Your task to perform on an android device: delete location history Image 0: 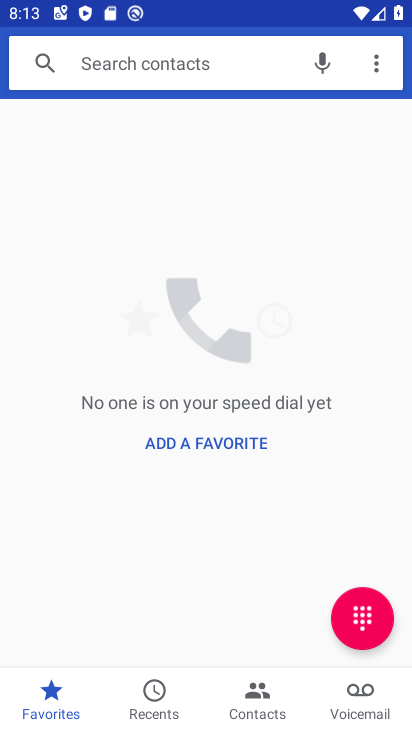
Step 0: press back button
Your task to perform on an android device: delete location history Image 1: 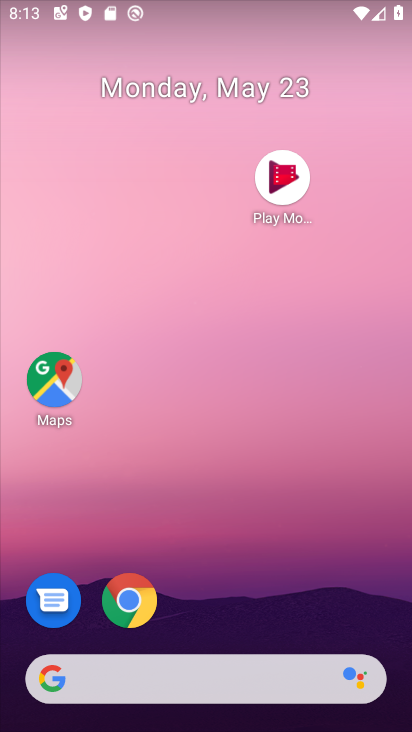
Step 1: drag from (257, 607) to (181, 225)
Your task to perform on an android device: delete location history Image 2: 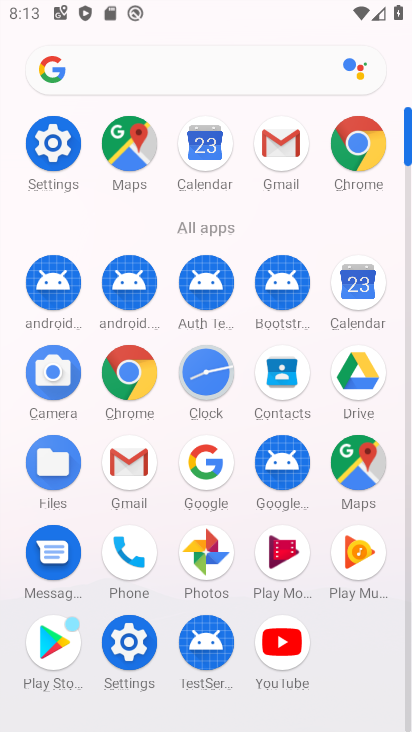
Step 2: click (360, 454)
Your task to perform on an android device: delete location history Image 3: 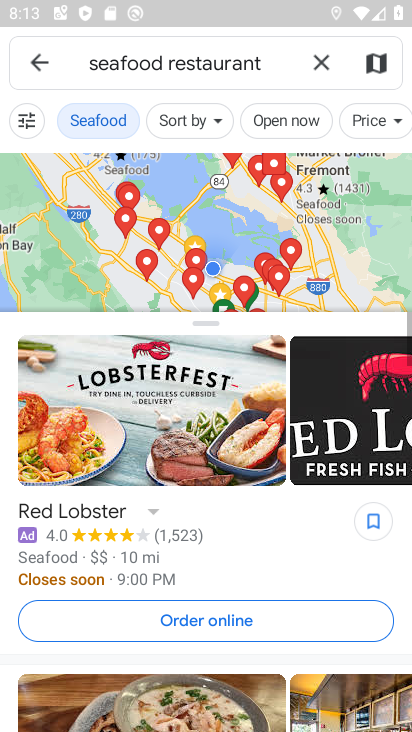
Step 3: click (36, 72)
Your task to perform on an android device: delete location history Image 4: 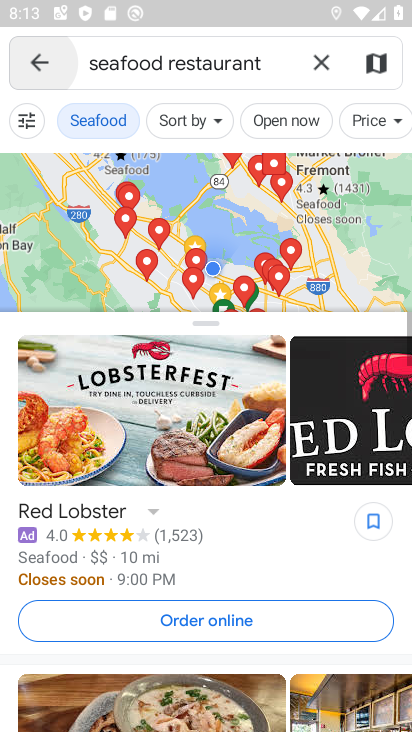
Step 4: click (37, 72)
Your task to perform on an android device: delete location history Image 5: 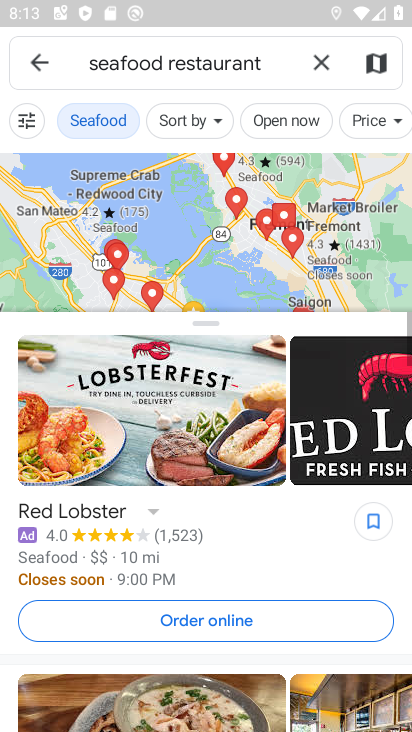
Step 5: click (28, 72)
Your task to perform on an android device: delete location history Image 6: 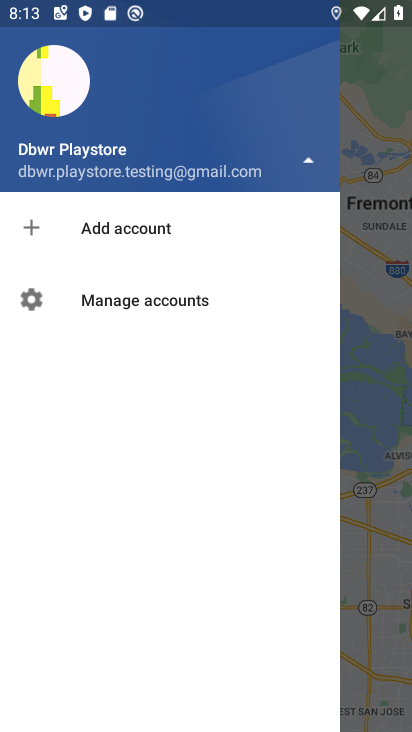
Step 6: click (308, 158)
Your task to perform on an android device: delete location history Image 7: 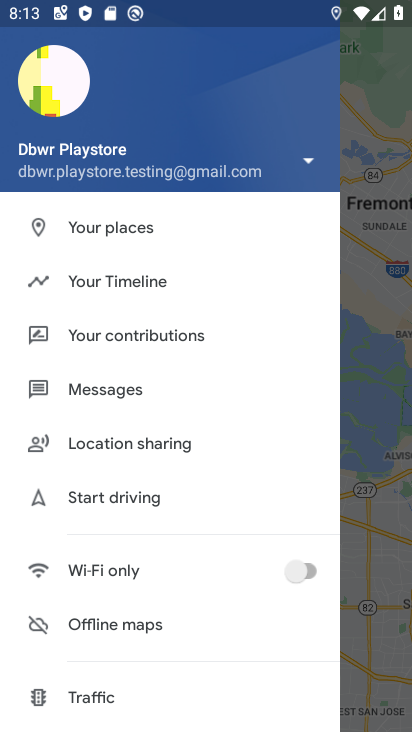
Step 7: click (115, 284)
Your task to perform on an android device: delete location history Image 8: 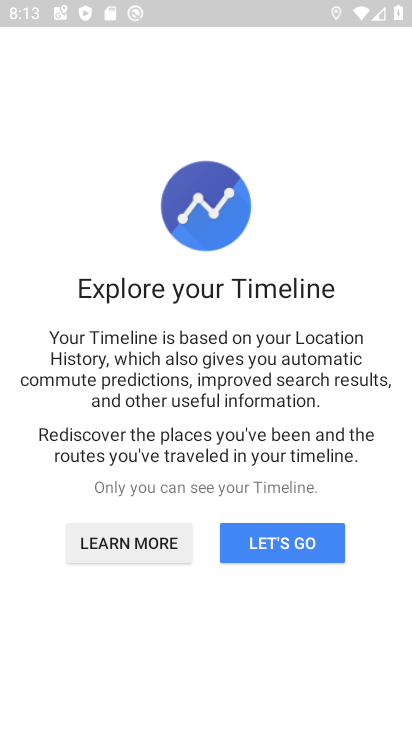
Step 8: click (247, 543)
Your task to perform on an android device: delete location history Image 9: 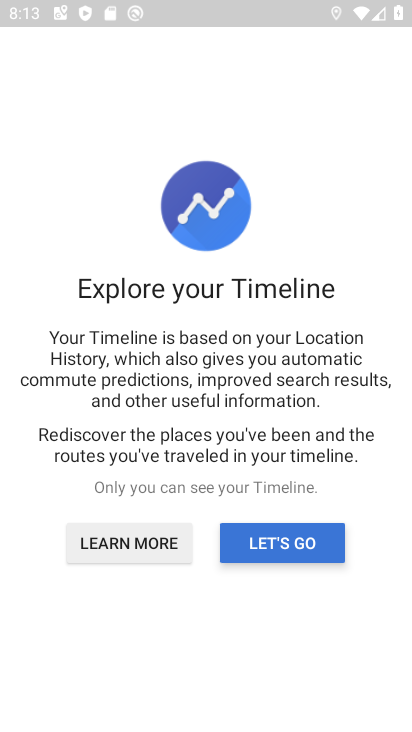
Step 9: click (248, 542)
Your task to perform on an android device: delete location history Image 10: 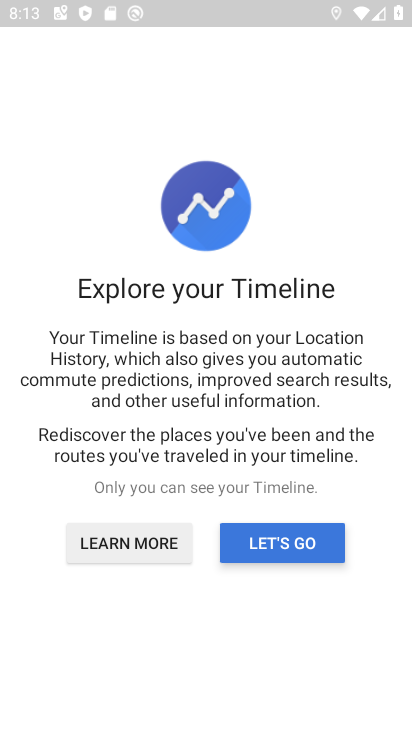
Step 10: click (249, 542)
Your task to perform on an android device: delete location history Image 11: 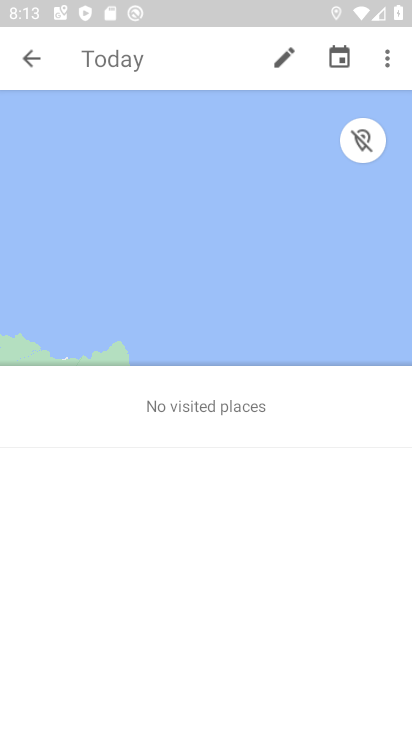
Step 11: click (385, 54)
Your task to perform on an android device: delete location history Image 12: 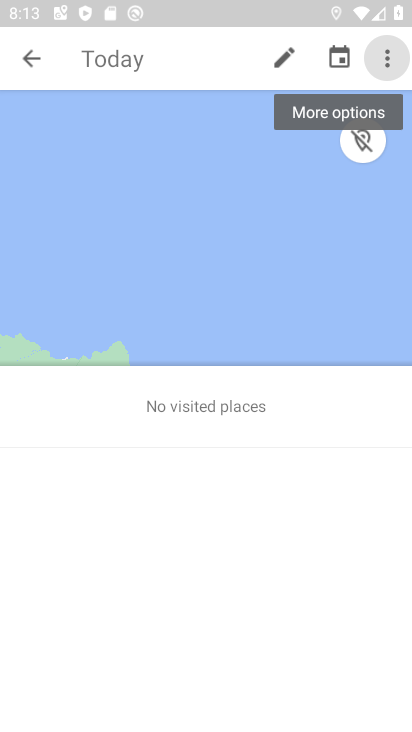
Step 12: click (383, 63)
Your task to perform on an android device: delete location history Image 13: 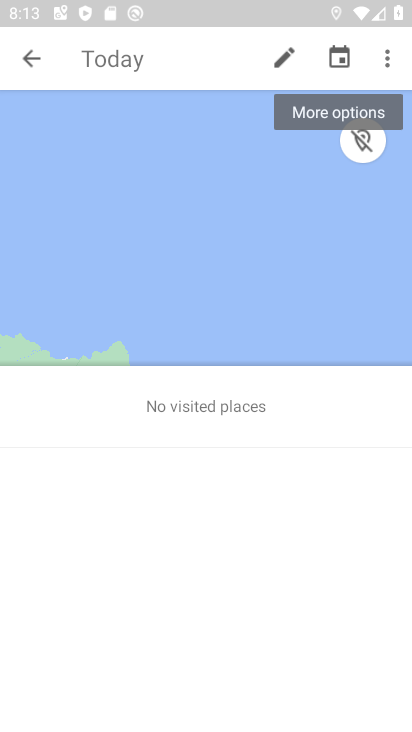
Step 13: click (382, 65)
Your task to perform on an android device: delete location history Image 14: 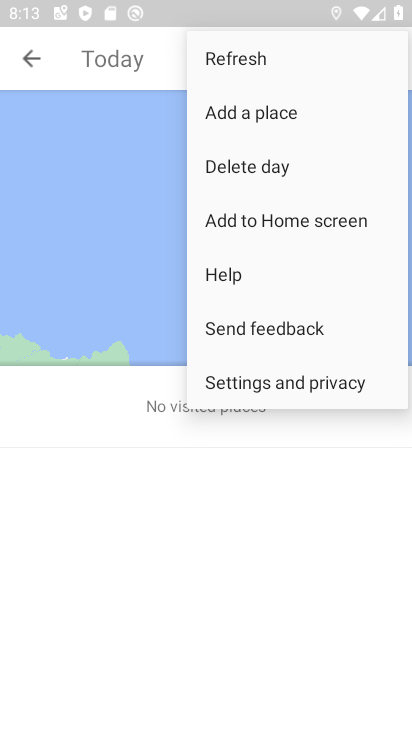
Step 14: click (275, 374)
Your task to perform on an android device: delete location history Image 15: 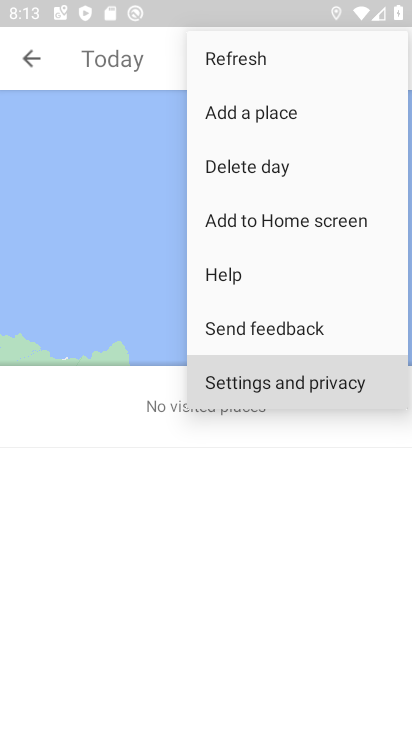
Step 15: click (275, 376)
Your task to perform on an android device: delete location history Image 16: 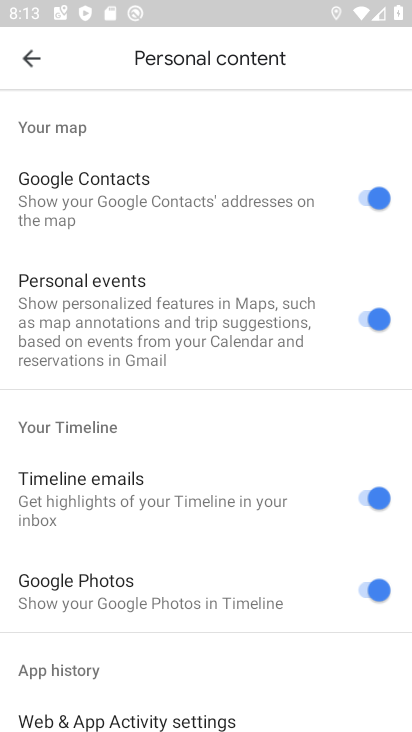
Step 16: drag from (185, 553) to (272, 214)
Your task to perform on an android device: delete location history Image 17: 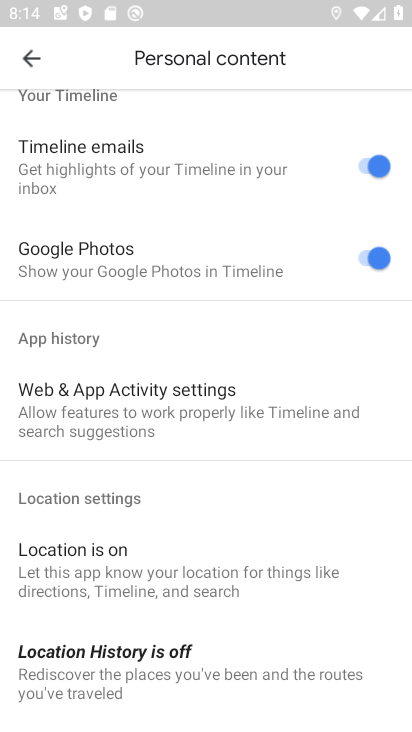
Step 17: drag from (181, 520) to (171, 196)
Your task to perform on an android device: delete location history Image 18: 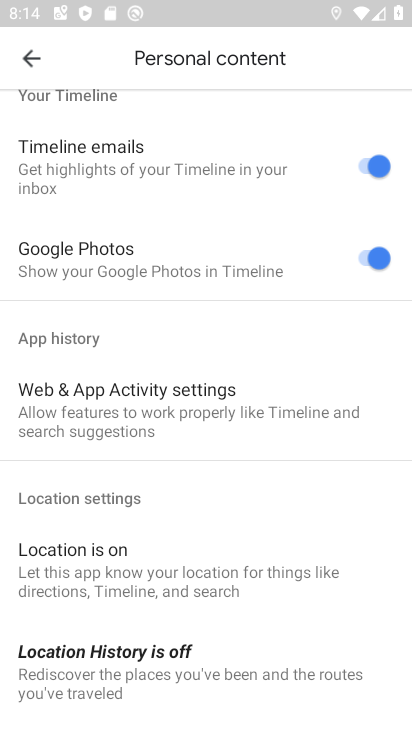
Step 18: drag from (135, 539) to (135, 97)
Your task to perform on an android device: delete location history Image 19: 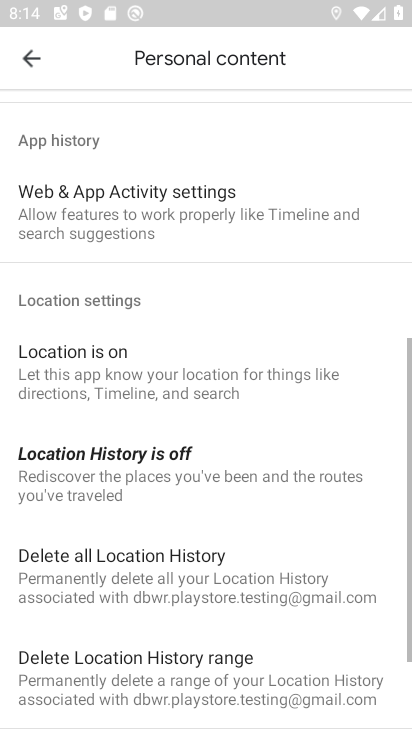
Step 19: drag from (175, 492) to (118, 138)
Your task to perform on an android device: delete location history Image 20: 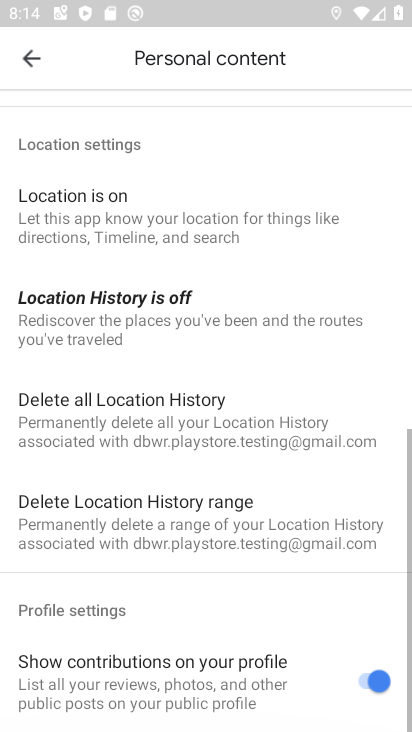
Step 20: drag from (181, 387) to (170, 145)
Your task to perform on an android device: delete location history Image 21: 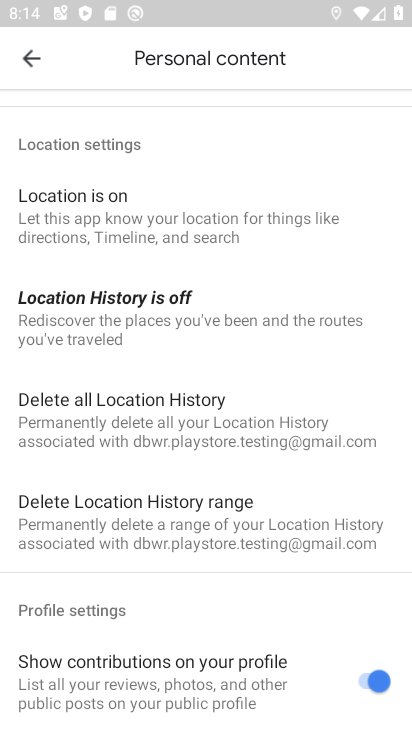
Step 21: click (88, 415)
Your task to perform on an android device: delete location history Image 22: 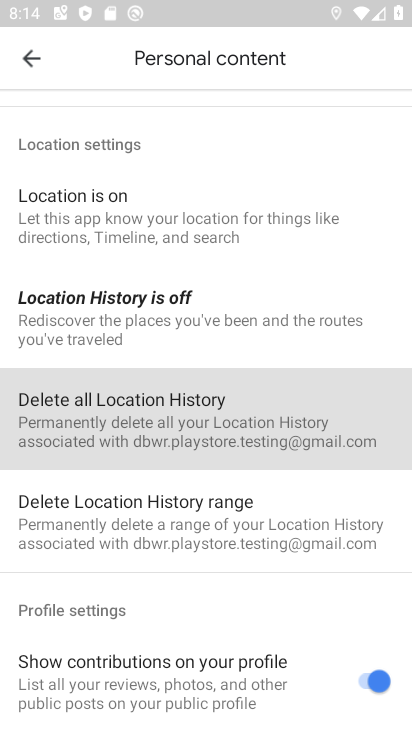
Step 22: click (88, 415)
Your task to perform on an android device: delete location history Image 23: 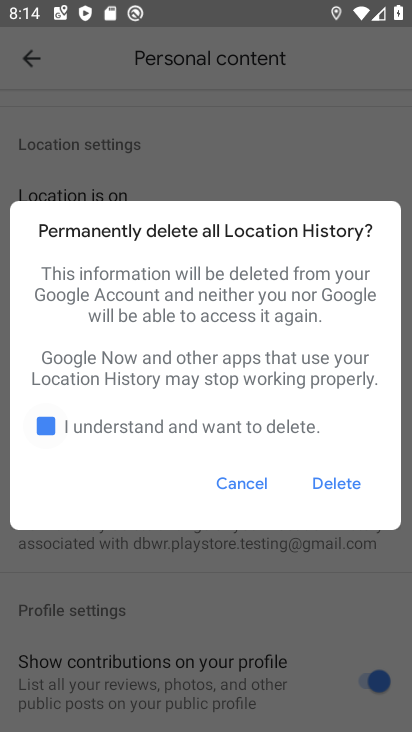
Step 23: click (88, 414)
Your task to perform on an android device: delete location history Image 24: 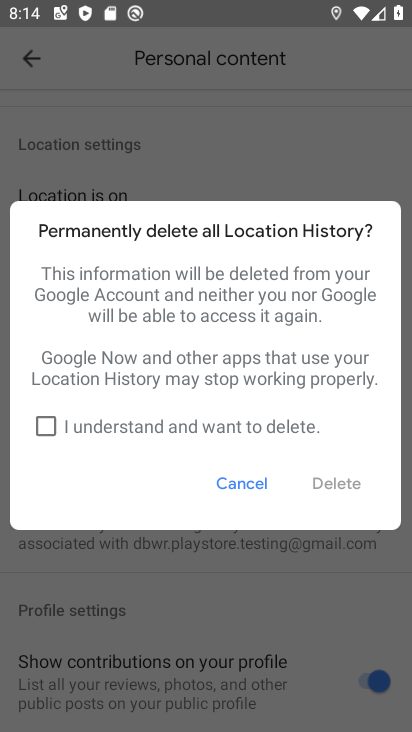
Step 24: click (42, 423)
Your task to perform on an android device: delete location history Image 25: 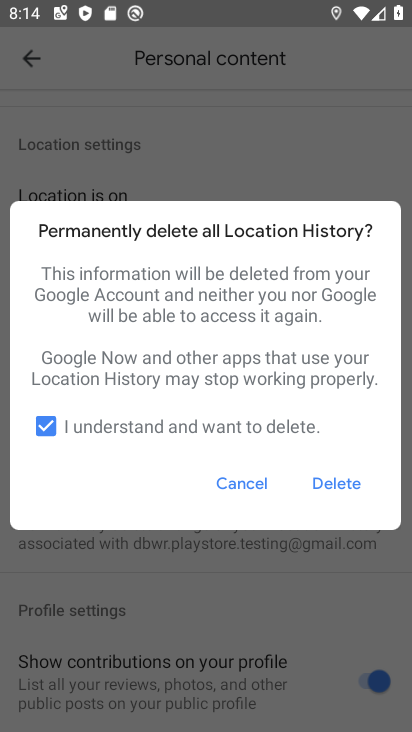
Step 25: click (344, 482)
Your task to perform on an android device: delete location history Image 26: 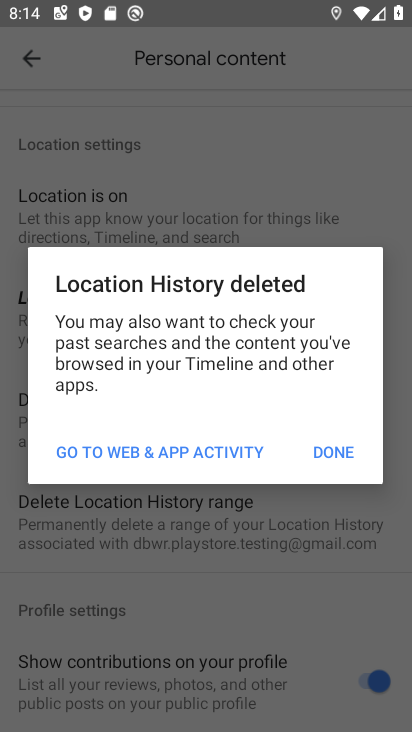
Step 26: click (322, 450)
Your task to perform on an android device: delete location history Image 27: 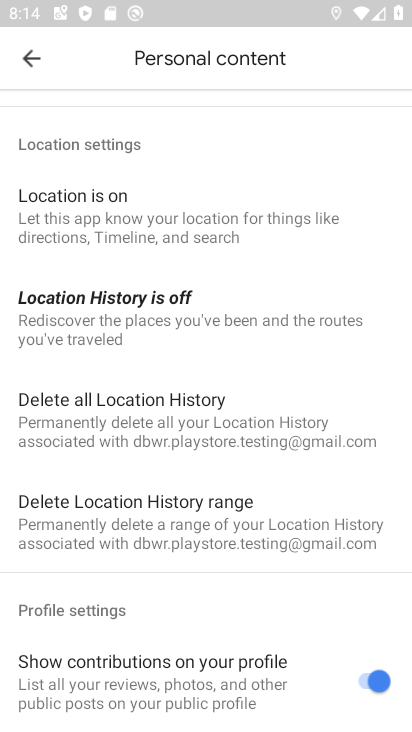
Step 27: task complete